Your task to perform on an android device: Open Youtube and go to the subscriptions tab Image 0: 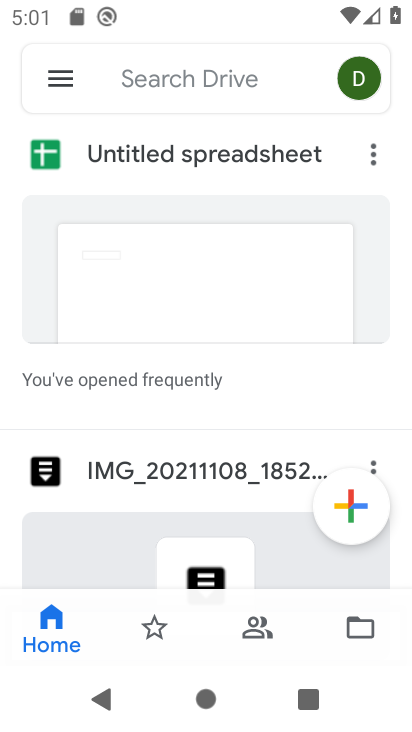
Step 0: press home button
Your task to perform on an android device: Open Youtube and go to the subscriptions tab Image 1: 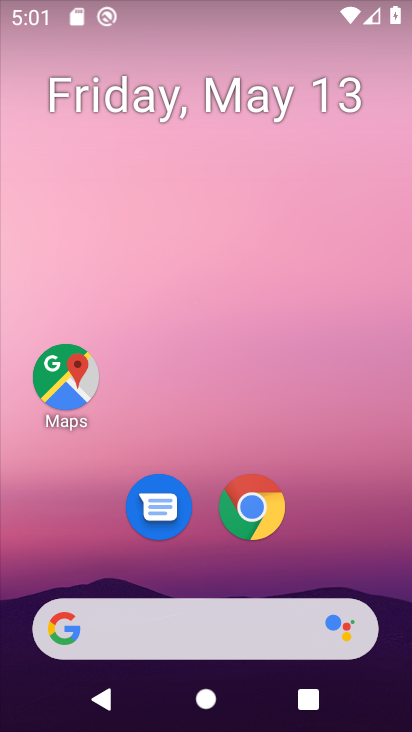
Step 1: drag from (333, 541) to (253, 150)
Your task to perform on an android device: Open Youtube and go to the subscriptions tab Image 2: 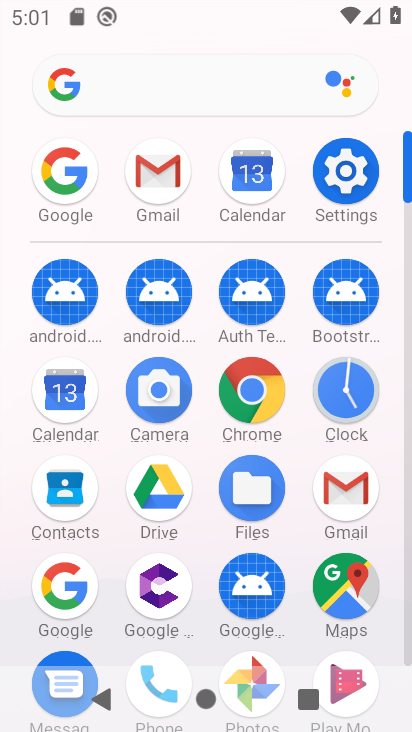
Step 2: drag from (207, 647) to (172, 195)
Your task to perform on an android device: Open Youtube and go to the subscriptions tab Image 3: 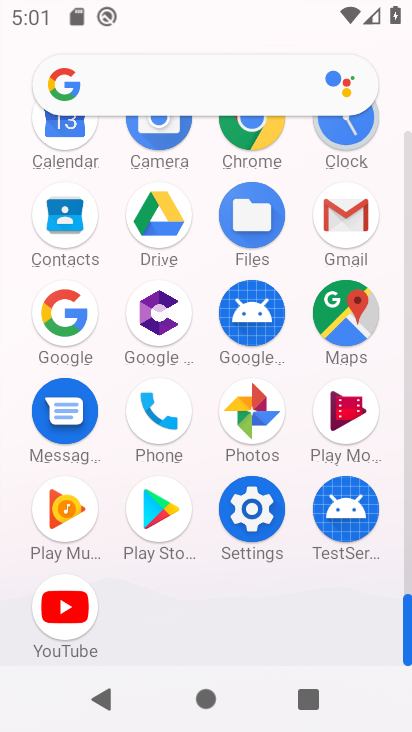
Step 3: click (76, 610)
Your task to perform on an android device: Open Youtube and go to the subscriptions tab Image 4: 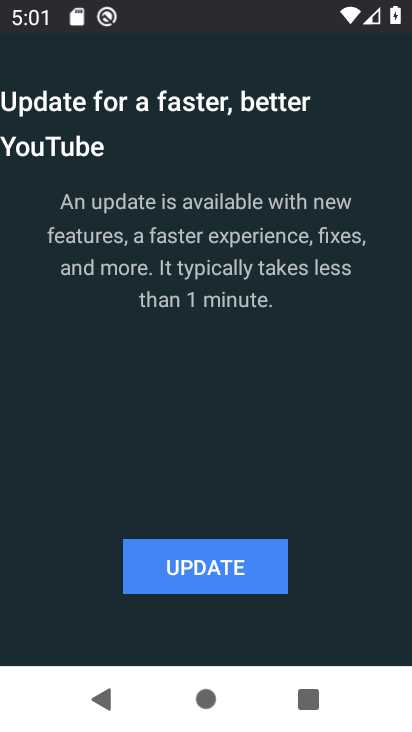
Step 4: click (256, 573)
Your task to perform on an android device: Open Youtube and go to the subscriptions tab Image 5: 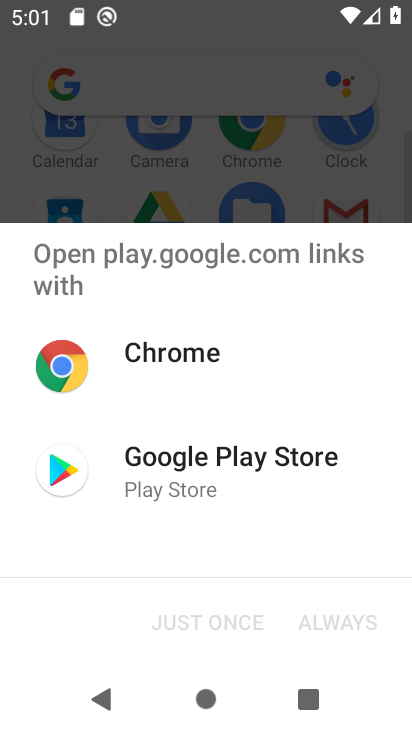
Step 5: click (180, 462)
Your task to perform on an android device: Open Youtube and go to the subscriptions tab Image 6: 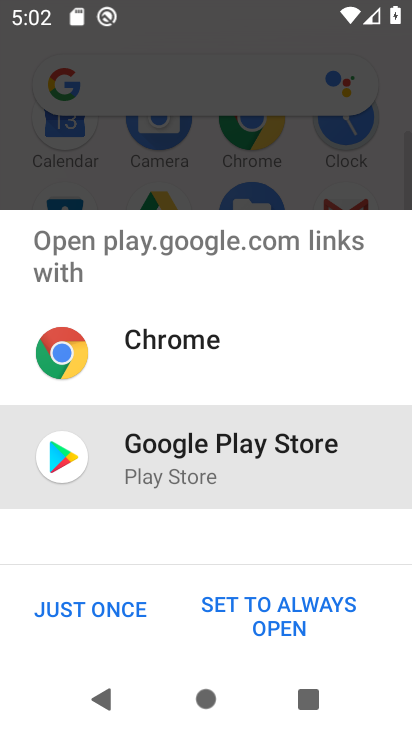
Step 6: click (111, 613)
Your task to perform on an android device: Open Youtube and go to the subscriptions tab Image 7: 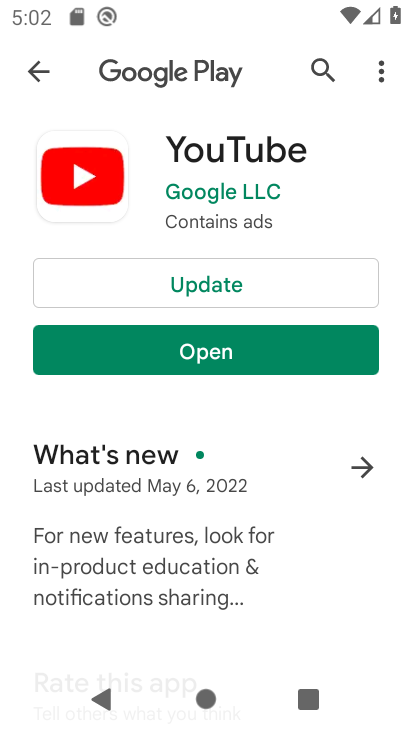
Step 7: click (209, 274)
Your task to perform on an android device: Open Youtube and go to the subscriptions tab Image 8: 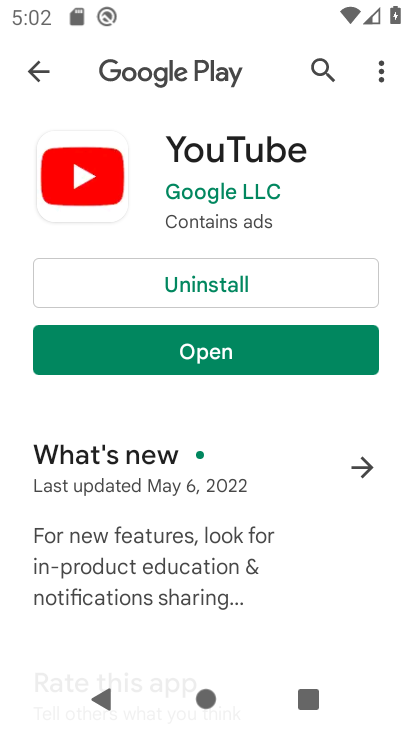
Step 8: click (217, 358)
Your task to perform on an android device: Open Youtube and go to the subscriptions tab Image 9: 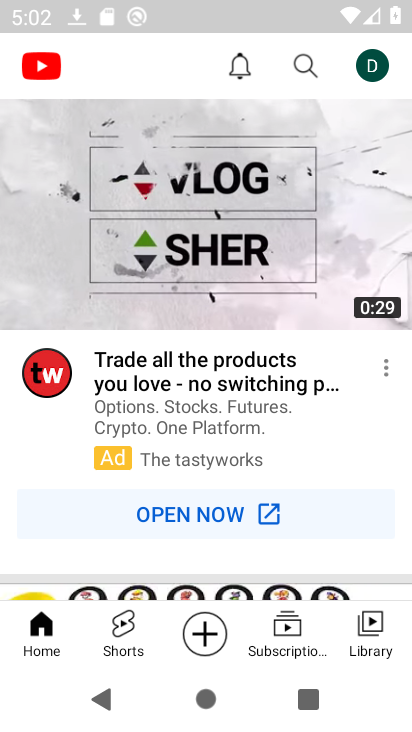
Step 9: click (285, 628)
Your task to perform on an android device: Open Youtube and go to the subscriptions tab Image 10: 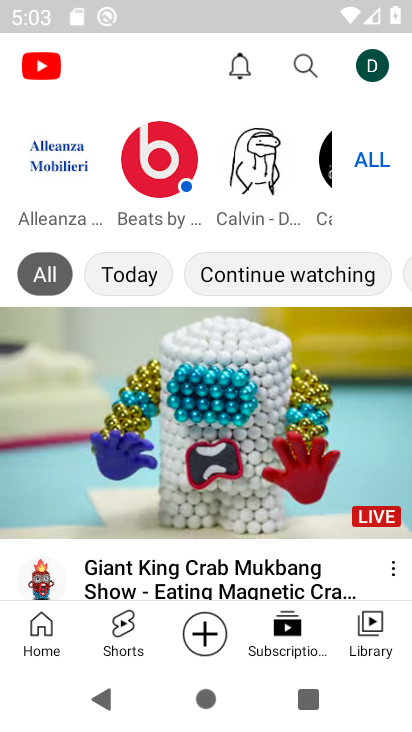
Step 10: task complete